Your task to perform on an android device: Open Google Maps and go to "Timeline" Image 0: 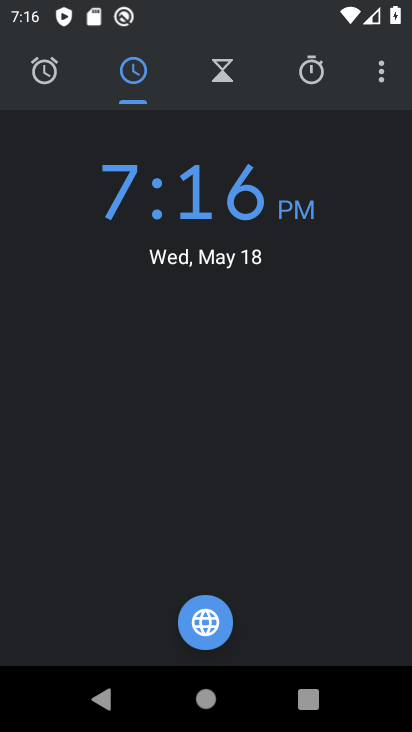
Step 0: press home button
Your task to perform on an android device: Open Google Maps and go to "Timeline" Image 1: 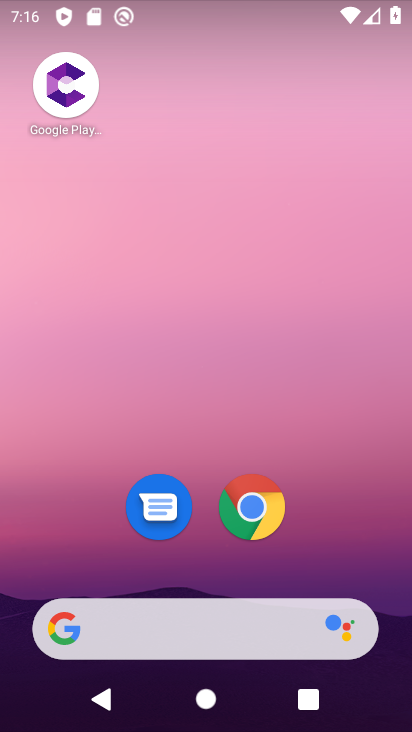
Step 1: drag from (217, 680) to (199, 295)
Your task to perform on an android device: Open Google Maps and go to "Timeline" Image 2: 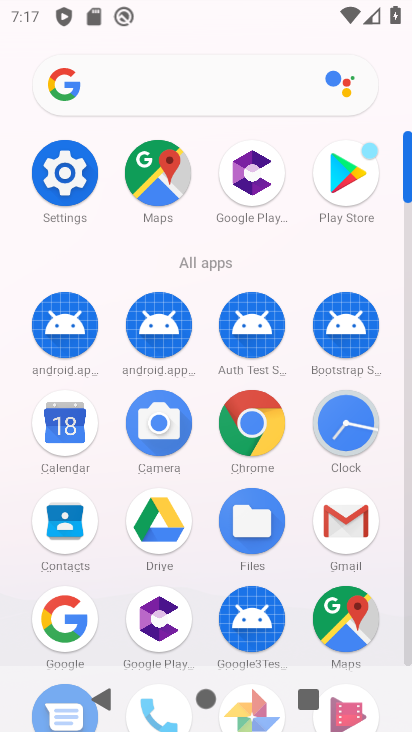
Step 2: click (342, 615)
Your task to perform on an android device: Open Google Maps and go to "Timeline" Image 3: 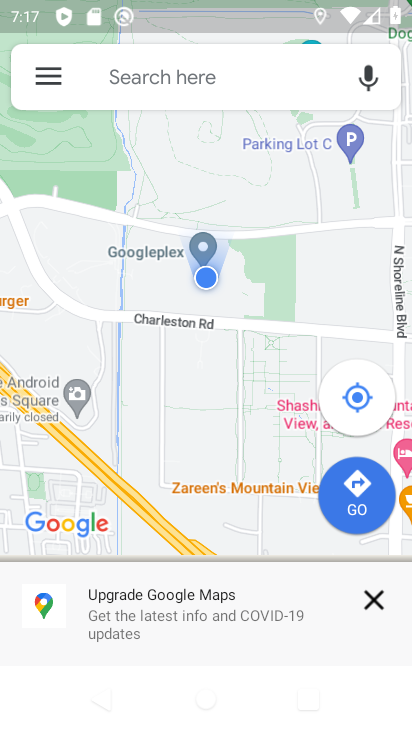
Step 3: click (49, 74)
Your task to perform on an android device: Open Google Maps and go to "Timeline" Image 4: 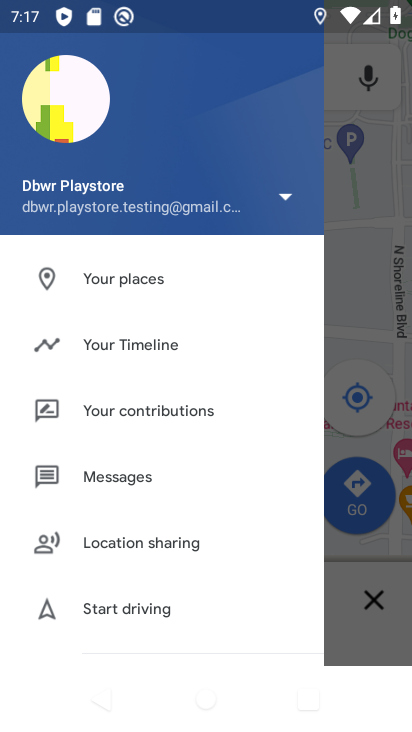
Step 4: click (154, 348)
Your task to perform on an android device: Open Google Maps and go to "Timeline" Image 5: 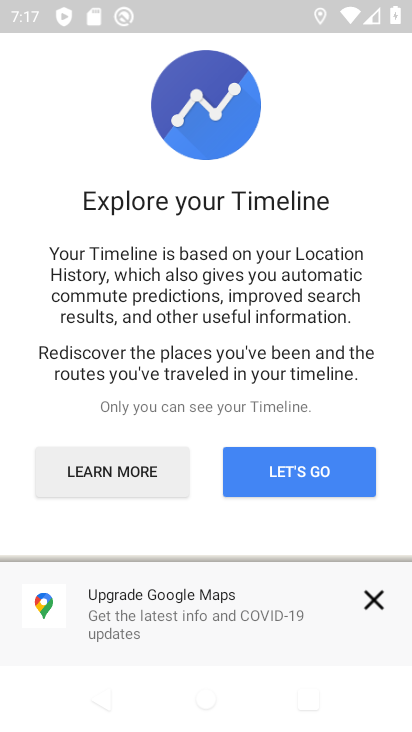
Step 5: click (367, 607)
Your task to perform on an android device: Open Google Maps and go to "Timeline" Image 6: 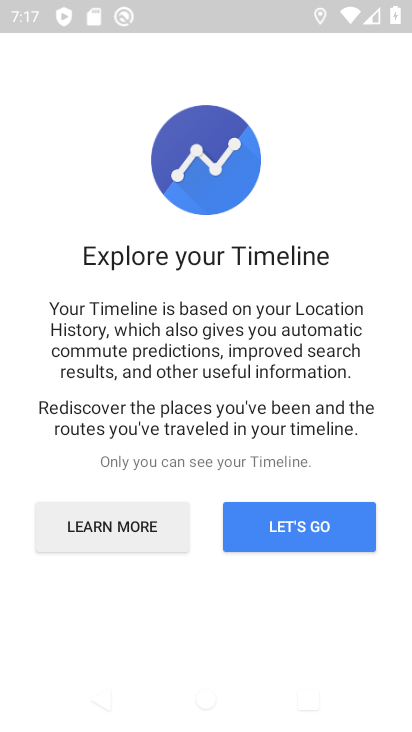
Step 6: click (297, 529)
Your task to perform on an android device: Open Google Maps and go to "Timeline" Image 7: 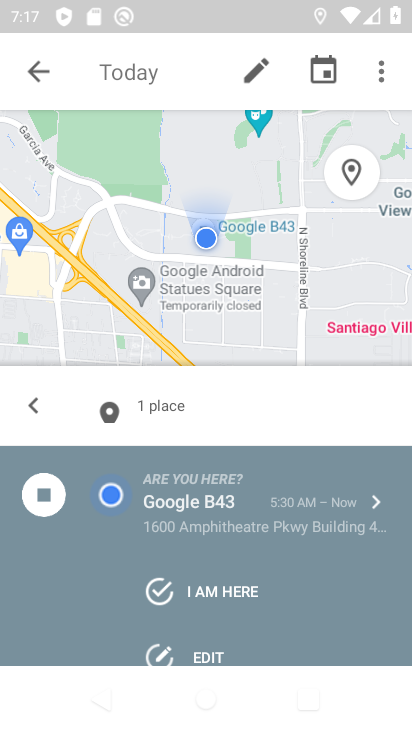
Step 7: task complete